Your task to perform on an android device: change your default location settings in chrome Image 0: 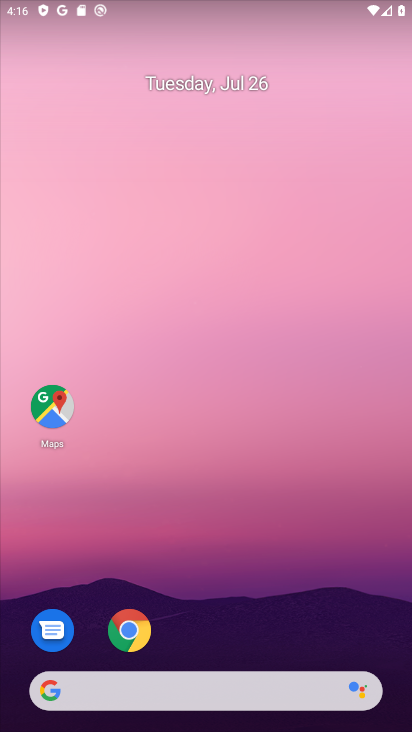
Step 0: drag from (303, 643) to (243, 101)
Your task to perform on an android device: change your default location settings in chrome Image 1: 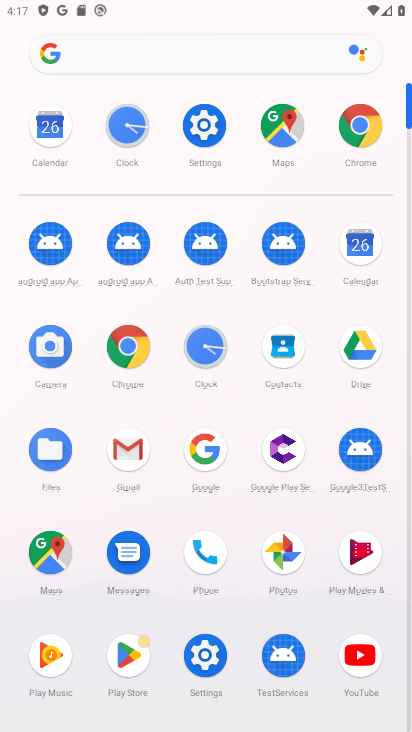
Step 1: click (125, 341)
Your task to perform on an android device: change your default location settings in chrome Image 2: 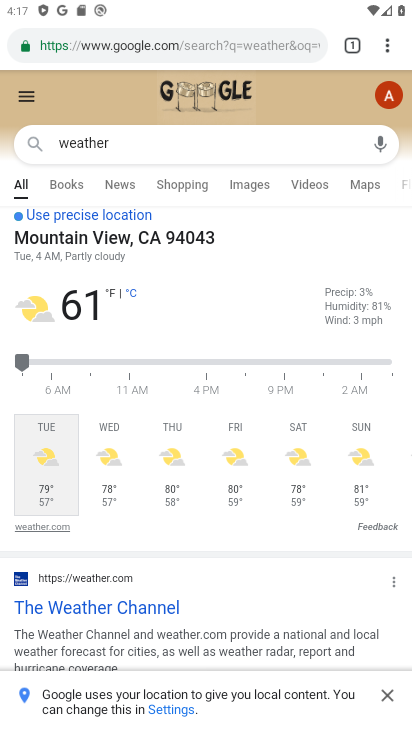
Step 2: drag from (388, 44) to (244, 505)
Your task to perform on an android device: change your default location settings in chrome Image 3: 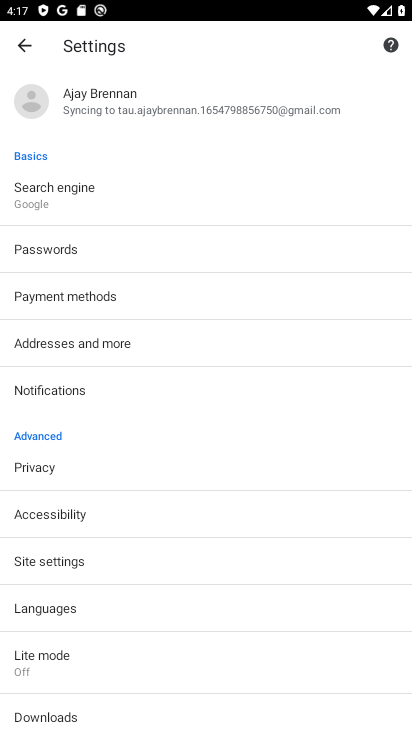
Step 3: drag from (216, 650) to (291, 244)
Your task to perform on an android device: change your default location settings in chrome Image 4: 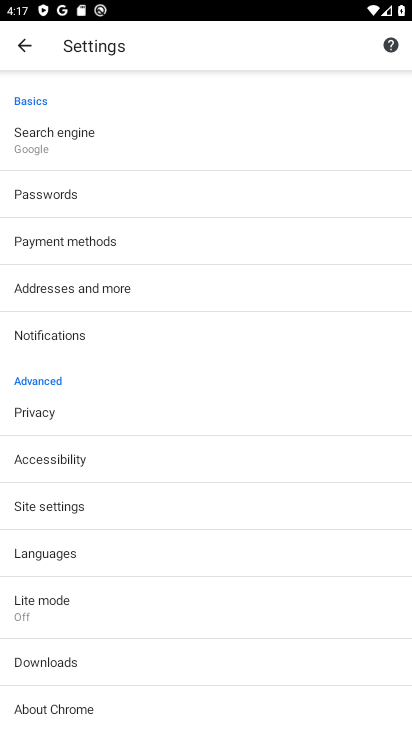
Step 4: click (71, 513)
Your task to perform on an android device: change your default location settings in chrome Image 5: 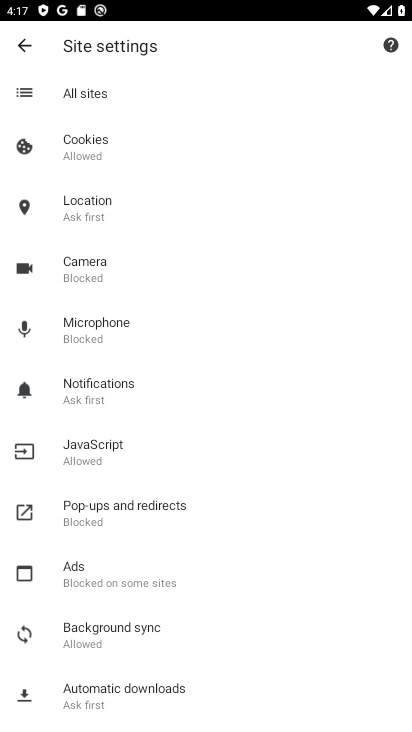
Step 5: click (82, 205)
Your task to perform on an android device: change your default location settings in chrome Image 6: 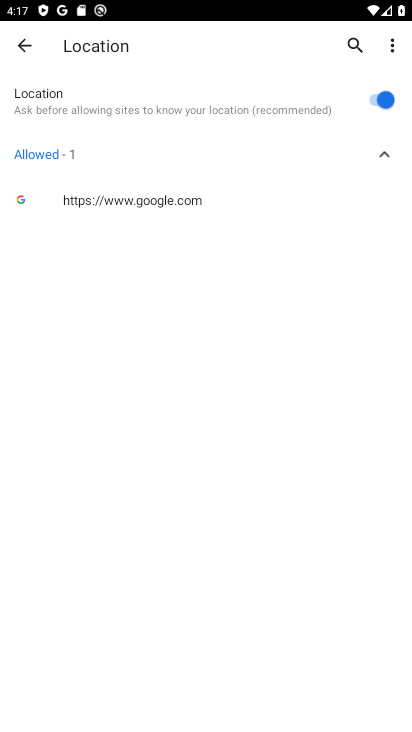
Step 6: click (387, 104)
Your task to perform on an android device: change your default location settings in chrome Image 7: 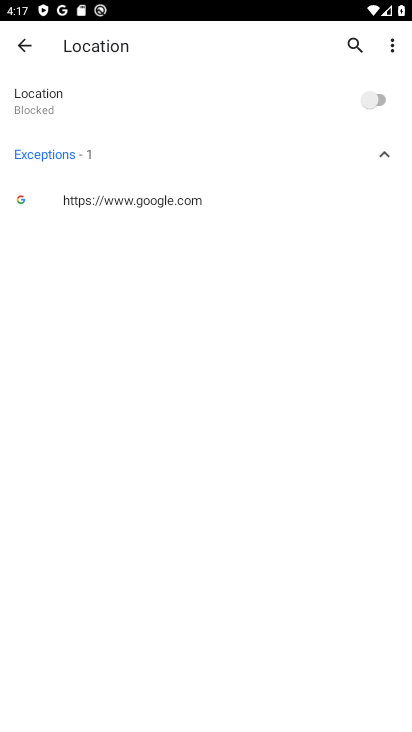
Step 7: task complete